Your task to perform on an android device: open a bookmark in the chrome app Image 0: 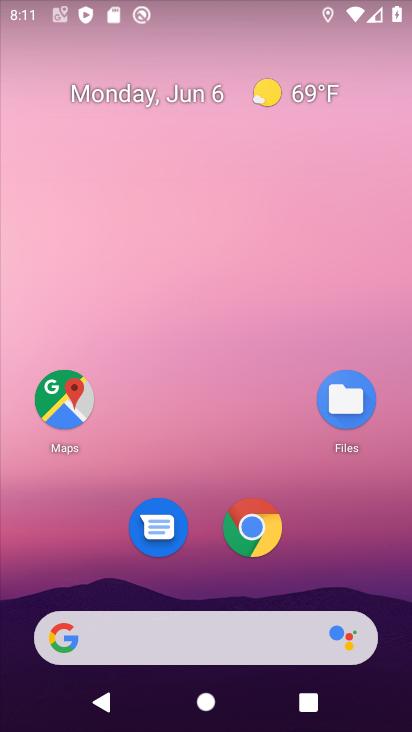
Step 0: click (257, 525)
Your task to perform on an android device: open a bookmark in the chrome app Image 1: 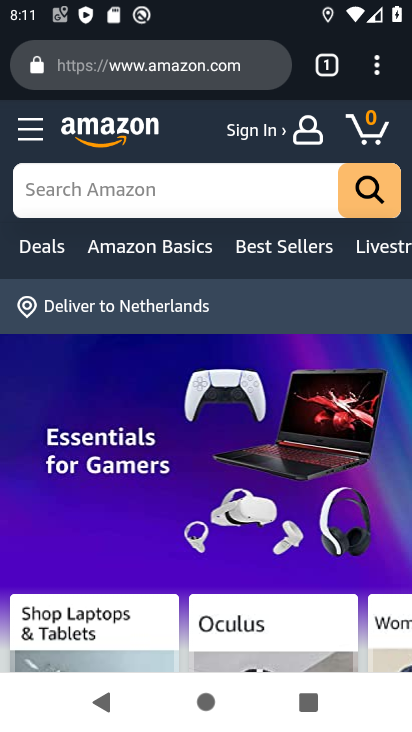
Step 1: click (374, 75)
Your task to perform on an android device: open a bookmark in the chrome app Image 2: 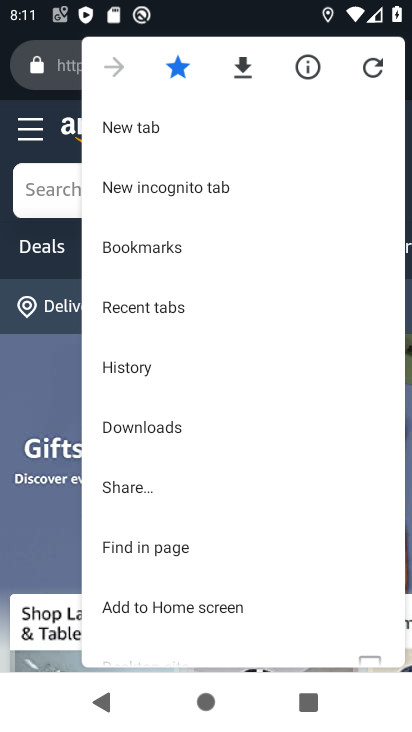
Step 2: click (212, 263)
Your task to perform on an android device: open a bookmark in the chrome app Image 3: 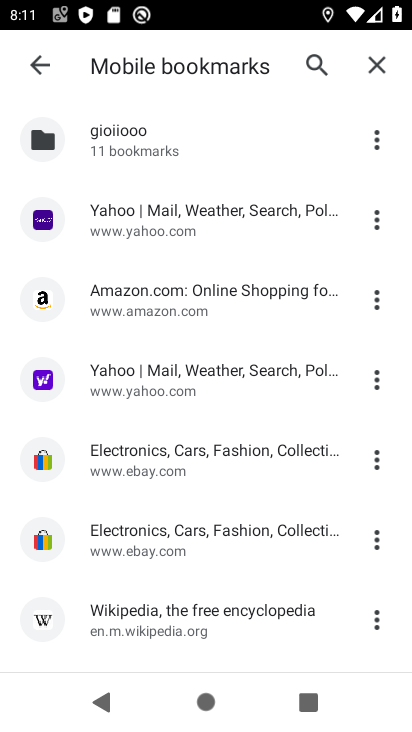
Step 3: click (168, 300)
Your task to perform on an android device: open a bookmark in the chrome app Image 4: 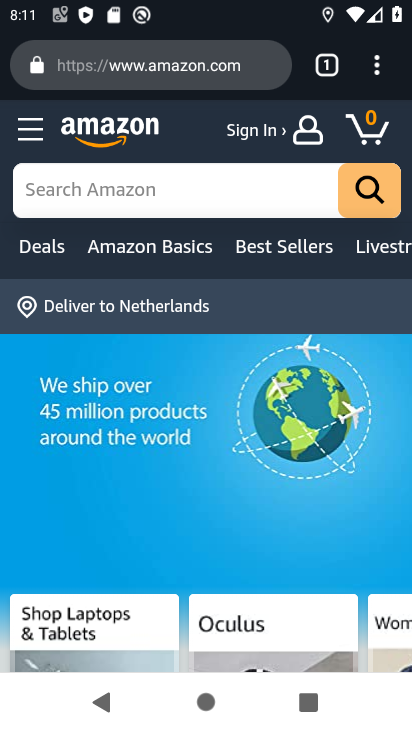
Step 4: task complete